Your task to perform on an android device: set default search engine in the chrome app Image 0: 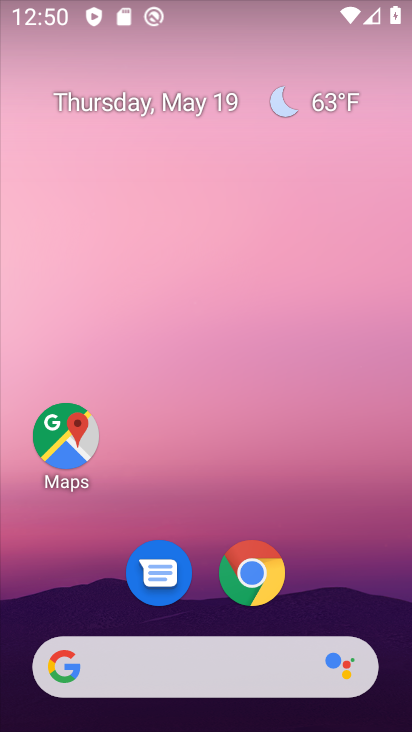
Step 0: drag from (344, 579) to (355, 160)
Your task to perform on an android device: set default search engine in the chrome app Image 1: 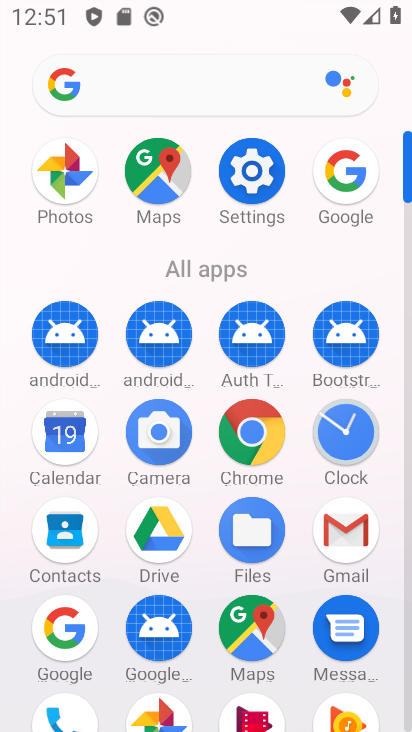
Step 1: drag from (296, 584) to (350, 259)
Your task to perform on an android device: set default search engine in the chrome app Image 2: 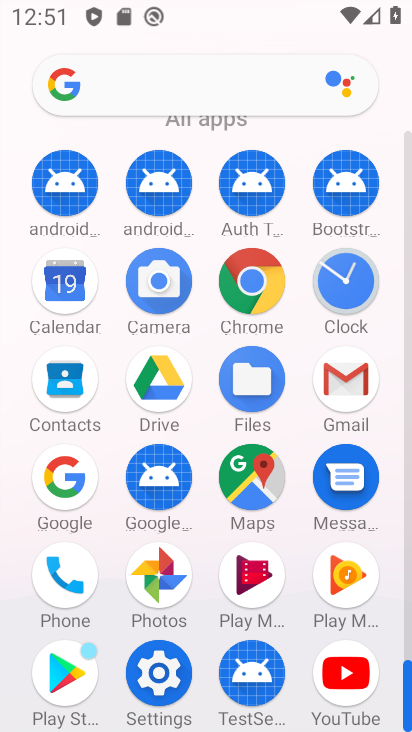
Step 2: click (240, 278)
Your task to perform on an android device: set default search engine in the chrome app Image 3: 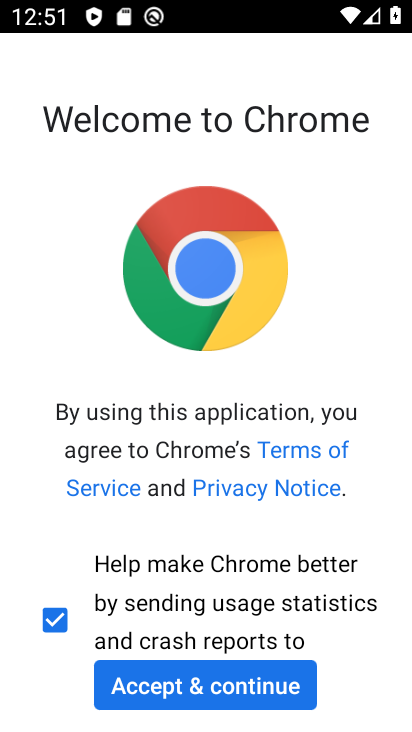
Step 3: click (234, 664)
Your task to perform on an android device: set default search engine in the chrome app Image 4: 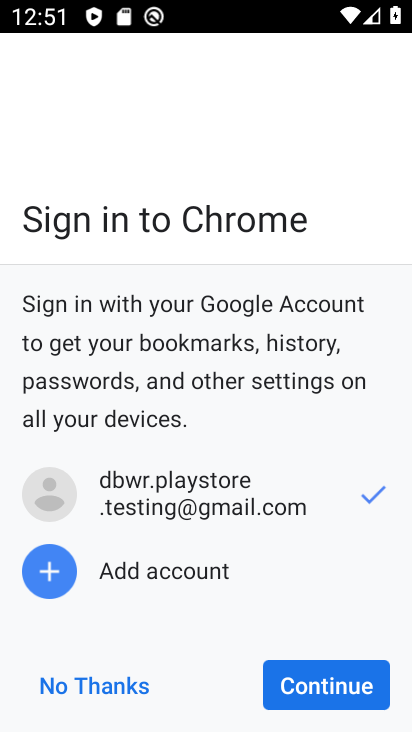
Step 4: click (308, 688)
Your task to perform on an android device: set default search engine in the chrome app Image 5: 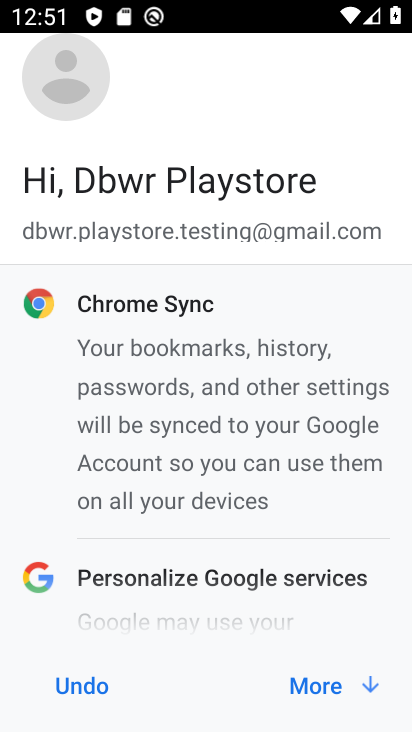
Step 5: click (312, 680)
Your task to perform on an android device: set default search engine in the chrome app Image 6: 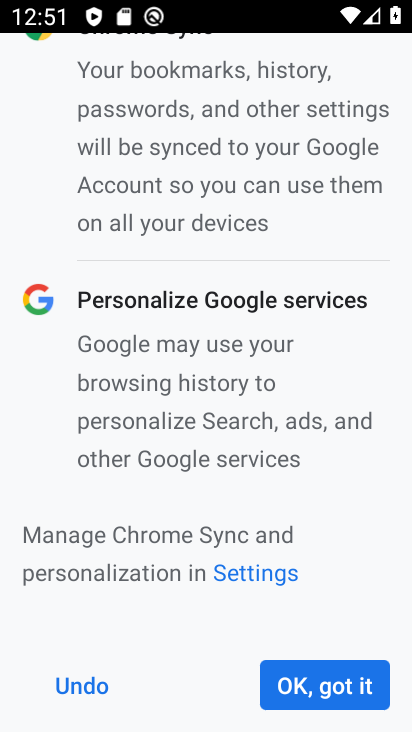
Step 6: click (313, 677)
Your task to perform on an android device: set default search engine in the chrome app Image 7: 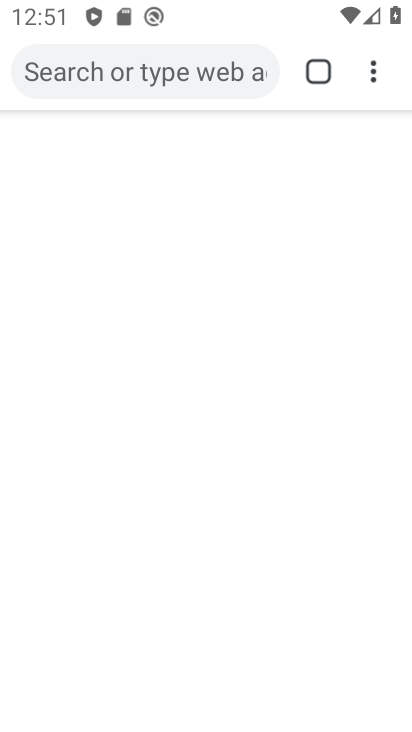
Step 7: click (369, 74)
Your task to perform on an android device: set default search engine in the chrome app Image 8: 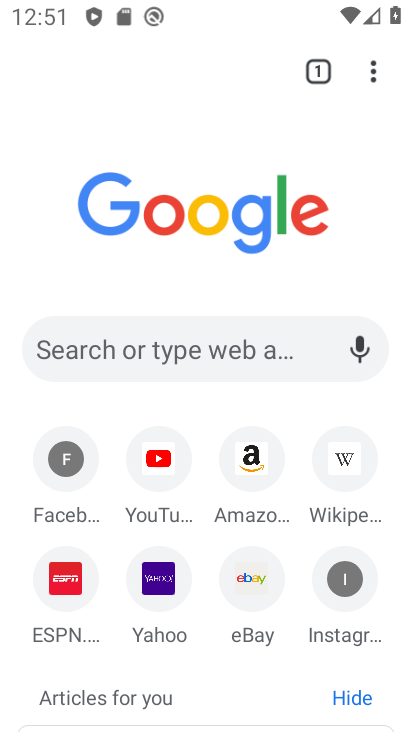
Step 8: click (382, 61)
Your task to perform on an android device: set default search engine in the chrome app Image 9: 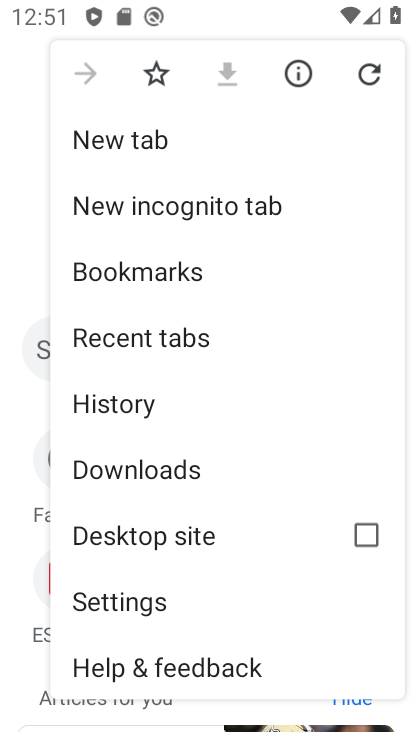
Step 9: drag from (224, 570) to (286, 265)
Your task to perform on an android device: set default search engine in the chrome app Image 10: 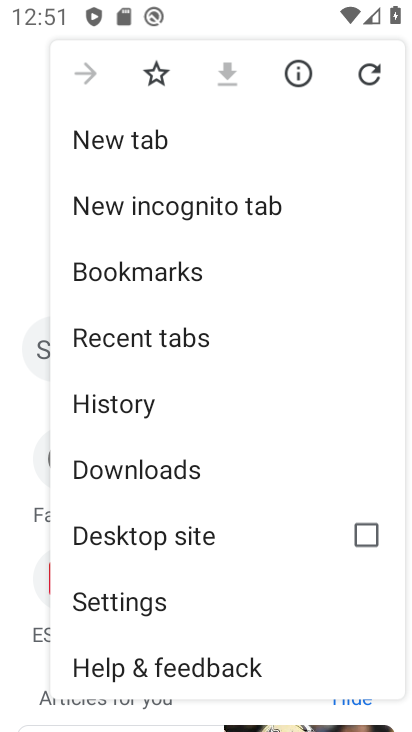
Step 10: click (151, 600)
Your task to perform on an android device: set default search engine in the chrome app Image 11: 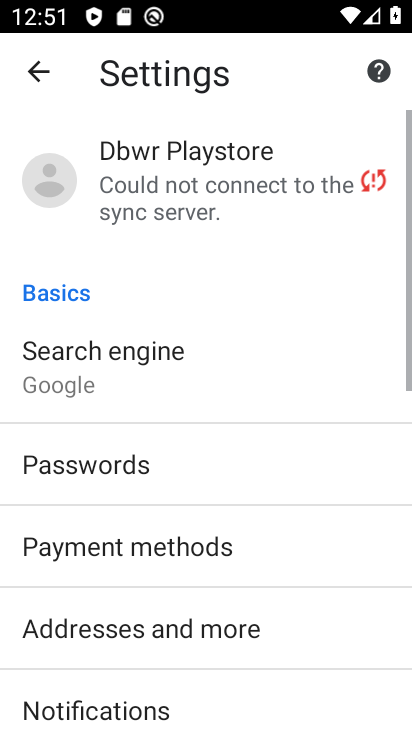
Step 11: click (115, 362)
Your task to perform on an android device: set default search engine in the chrome app Image 12: 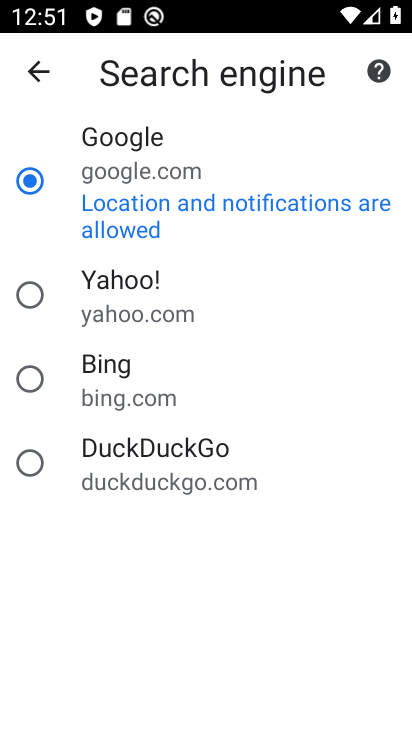
Step 12: click (135, 361)
Your task to perform on an android device: set default search engine in the chrome app Image 13: 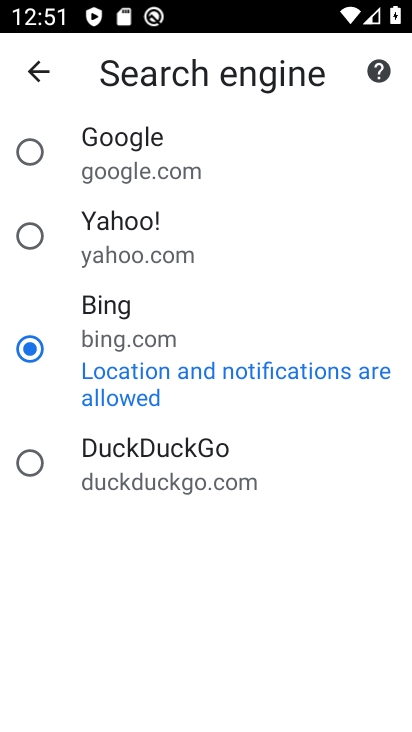
Step 13: task complete